Your task to perform on an android device: change notification settings in the gmail app Image 0: 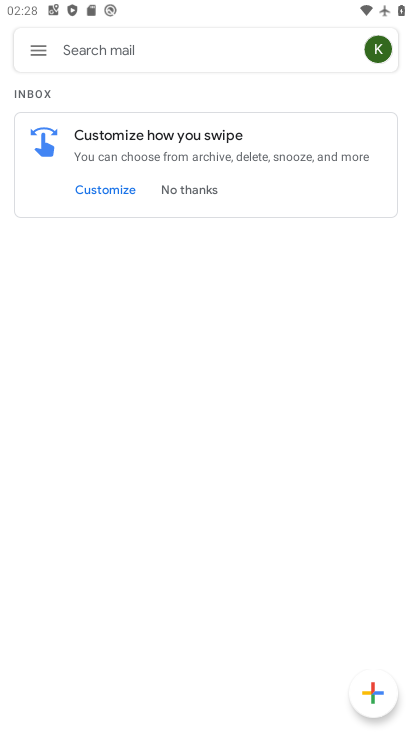
Step 0: press home button
Your task to perform on an android device: change notification settings in the gmail app Image 1: 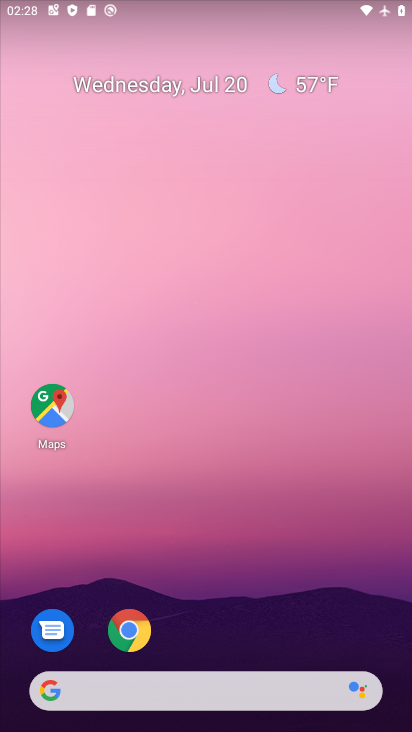
Step 1: drag from (249, 518) to (210, 83)
Your task to perform on an android device: change notification settings in the gmail app Image 2: 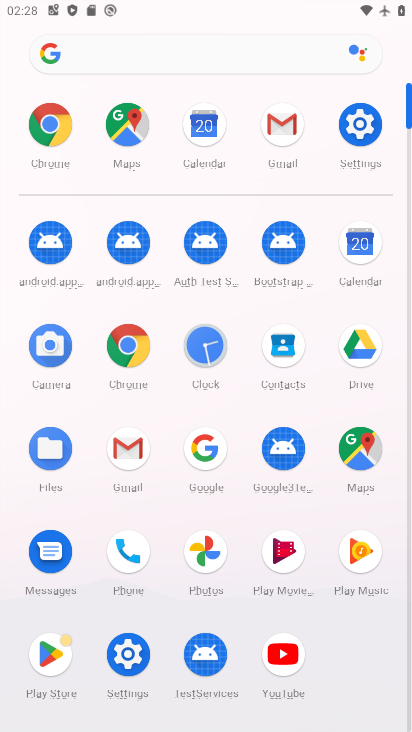
Step 2: click (268, 134)
Your task to perform on an android device: change notification settings in the gmail app Image 3: 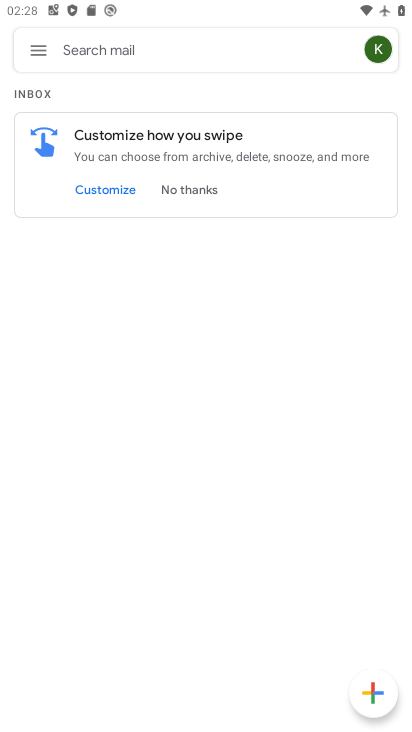
Step 3: click (36, 53)
Your task to perform on an android device: change notification settings in the gmail app Image 4: 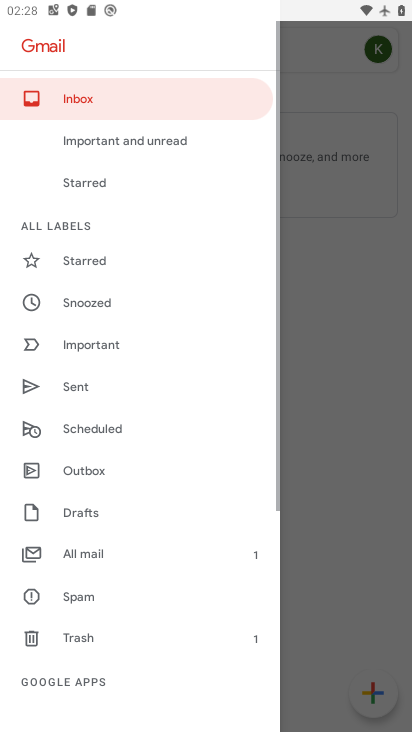
Step 4: drag from (160, 623) to (101, 115)
Your task to perform on an android device: change notification settings in the gmail app Image 5: 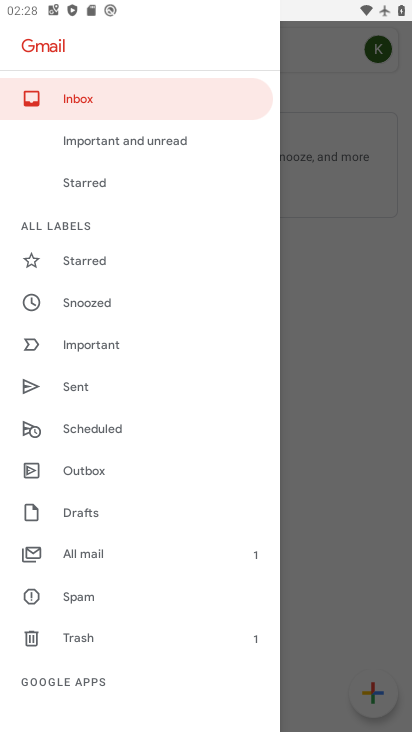
Step 5: drag from (103, 639) to (340, 15)
Your task to perform on an android device: change notification settings in the gmail app Image 6: 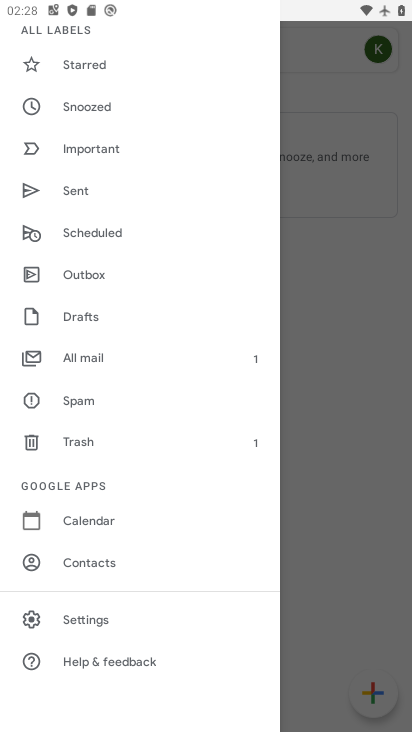
Step 6: click (95, 617)
Your task to perform on an android device: change notification settings in the gmail app Image 7: 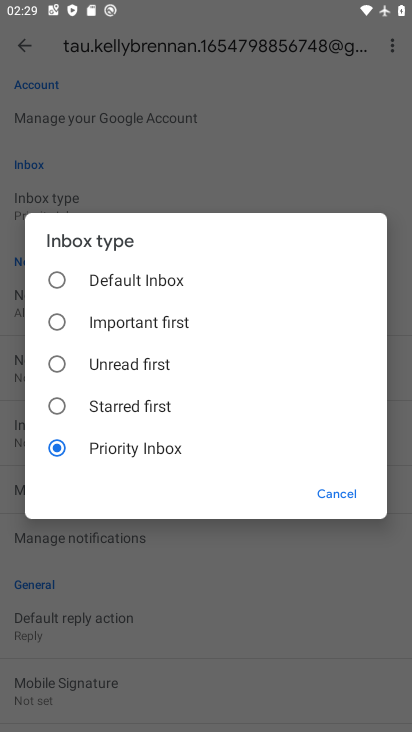
Step 7: click (328, 485)
Your task to perform on an android device: change notification settings in the gmail app Image 8: 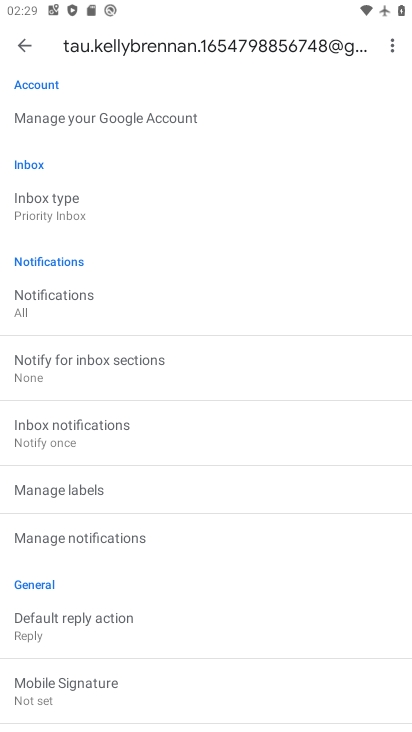
Step 8: click (119, 548)
Your task to perform on an android device: change notification settings in the gmail app Image 9: 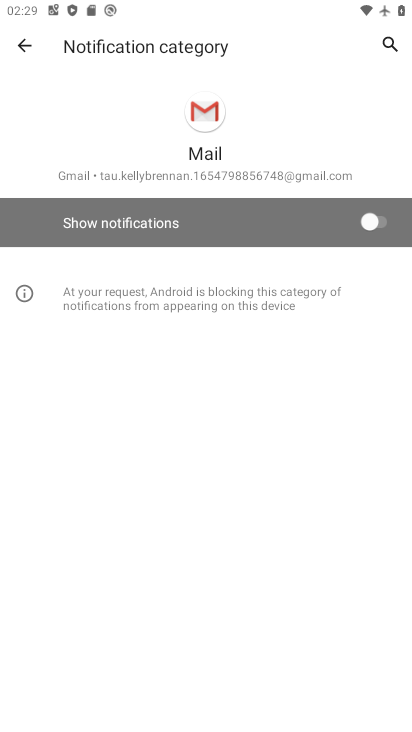
Step 9: click (350, 226)
Your task to perform on an android device: change notification settings in the gmail app Image 10: 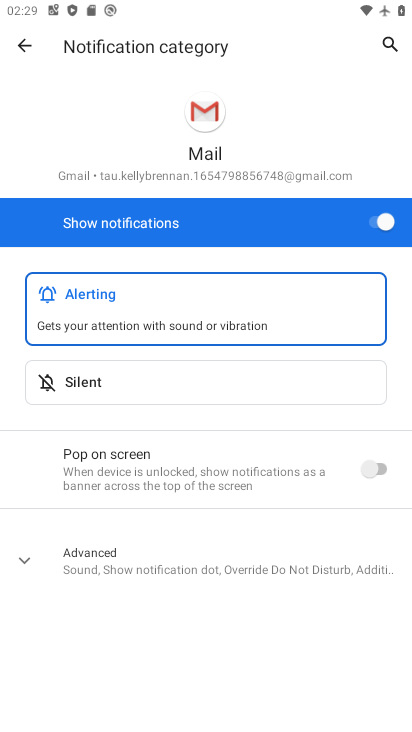
Step 10: task complete